Your task to perform on an android device: open app "ColorNote Notepad Notes" (install if not already installed) Image 0: 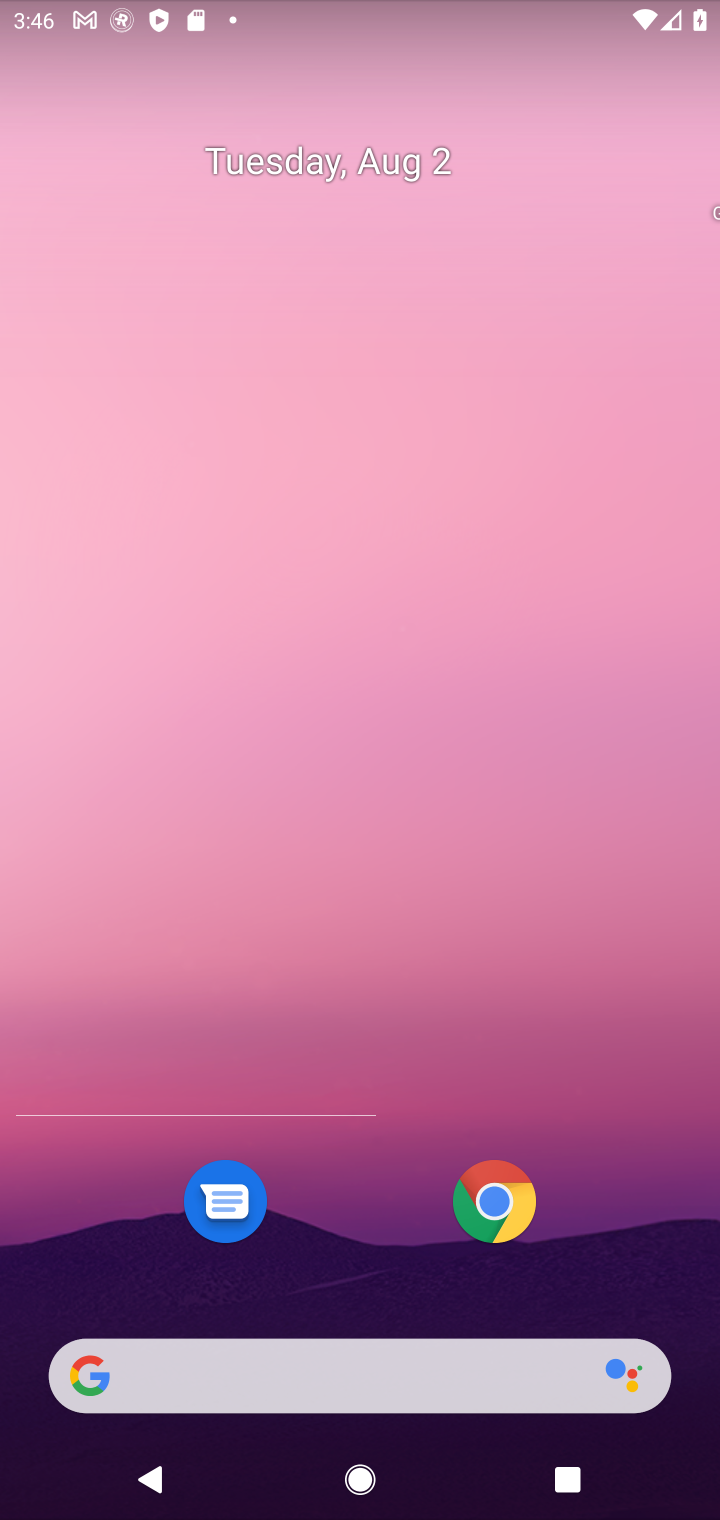
Step 0: press home button
Your task to perform on an android device: open app "ColorNote Notepad Notes" (install if not already installed) Image 1: 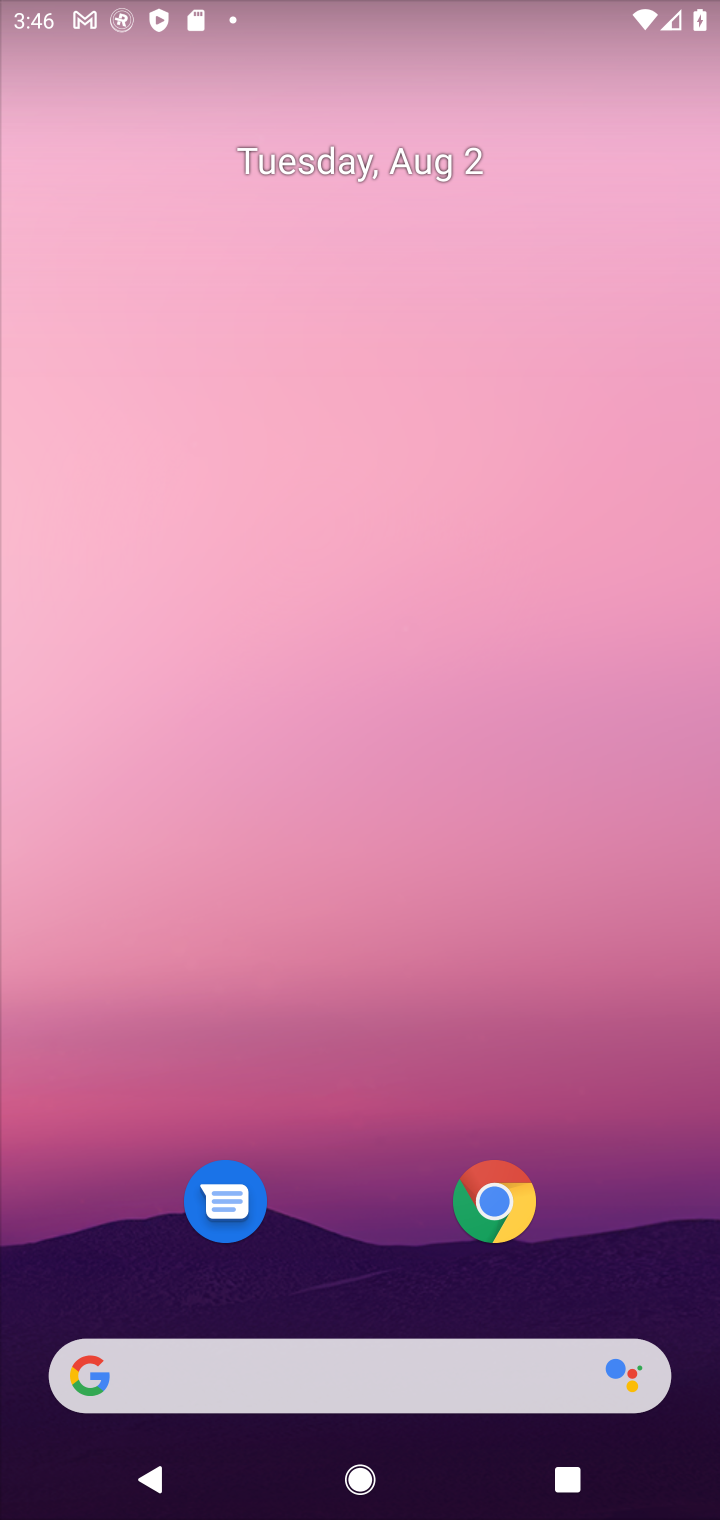
Step 1: drag from (395, 1286) to (362, 282)
Your task to perform on an android device: open app "ColorNote Notepad Notes" (install if not already installed) Image 2: 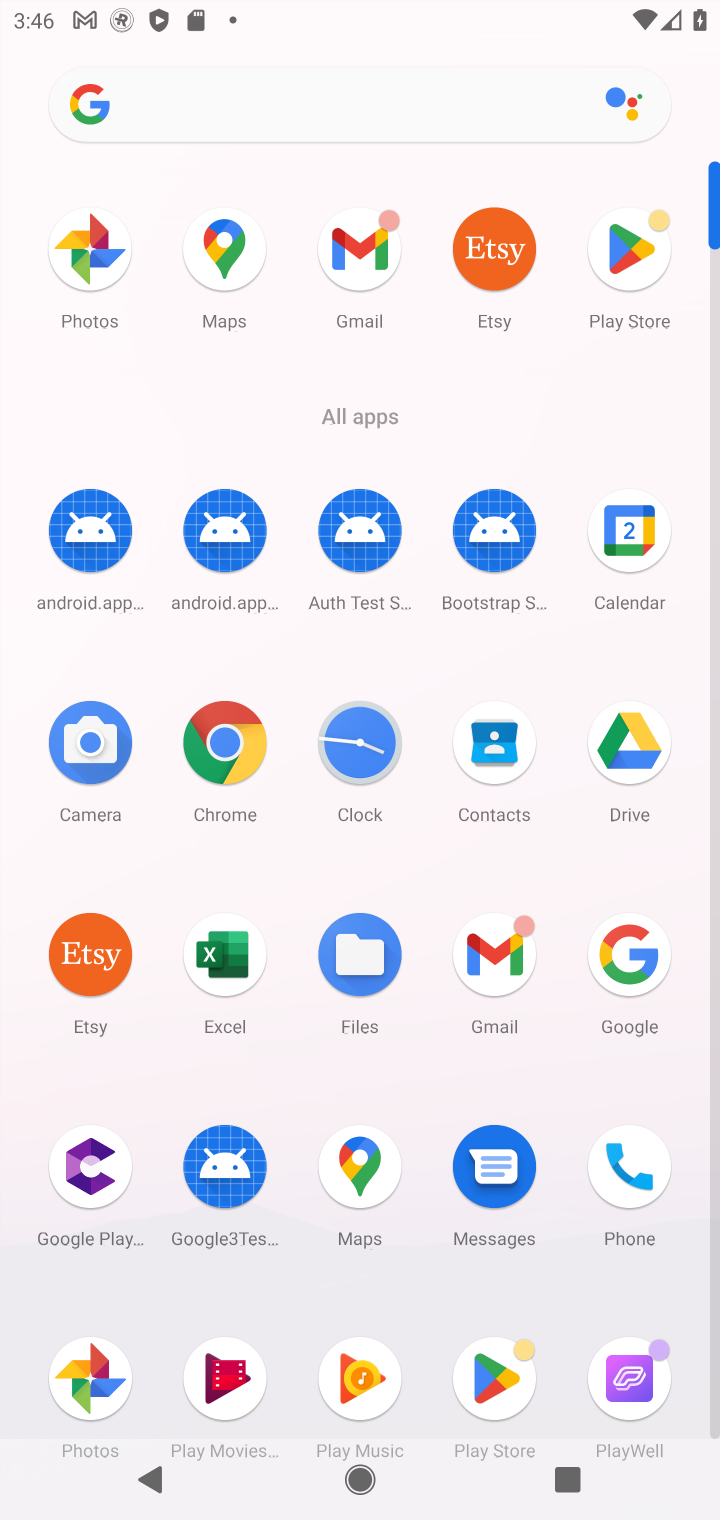
Step 2: click (620, 243)
Your task to perform on an android device: open app "ColorNote Notepad Notes" (install if not already installed) Image 3: 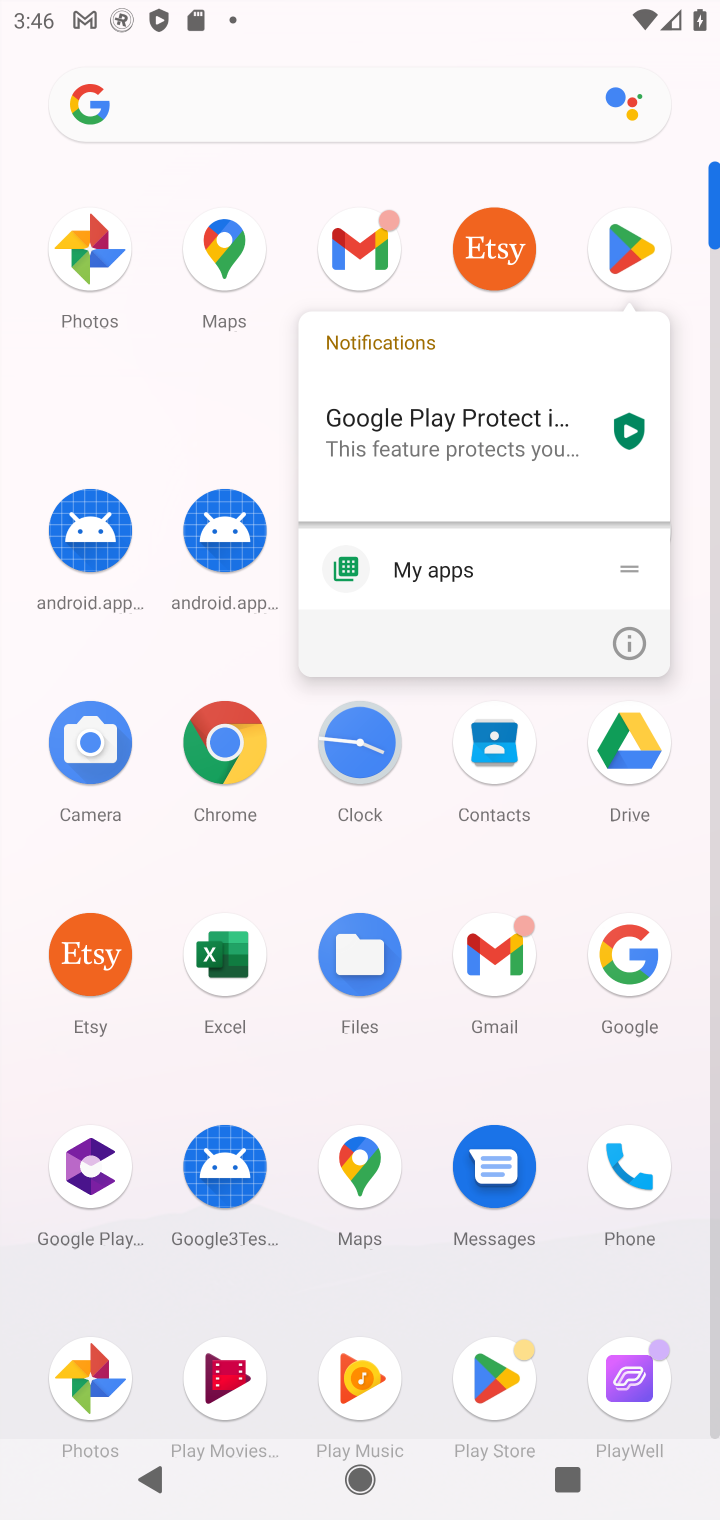
Step 3: click (619, 246)
Your task to perform on an android device: open app "ColorNote Notepad Notes" (install if not already installed) Image 4: 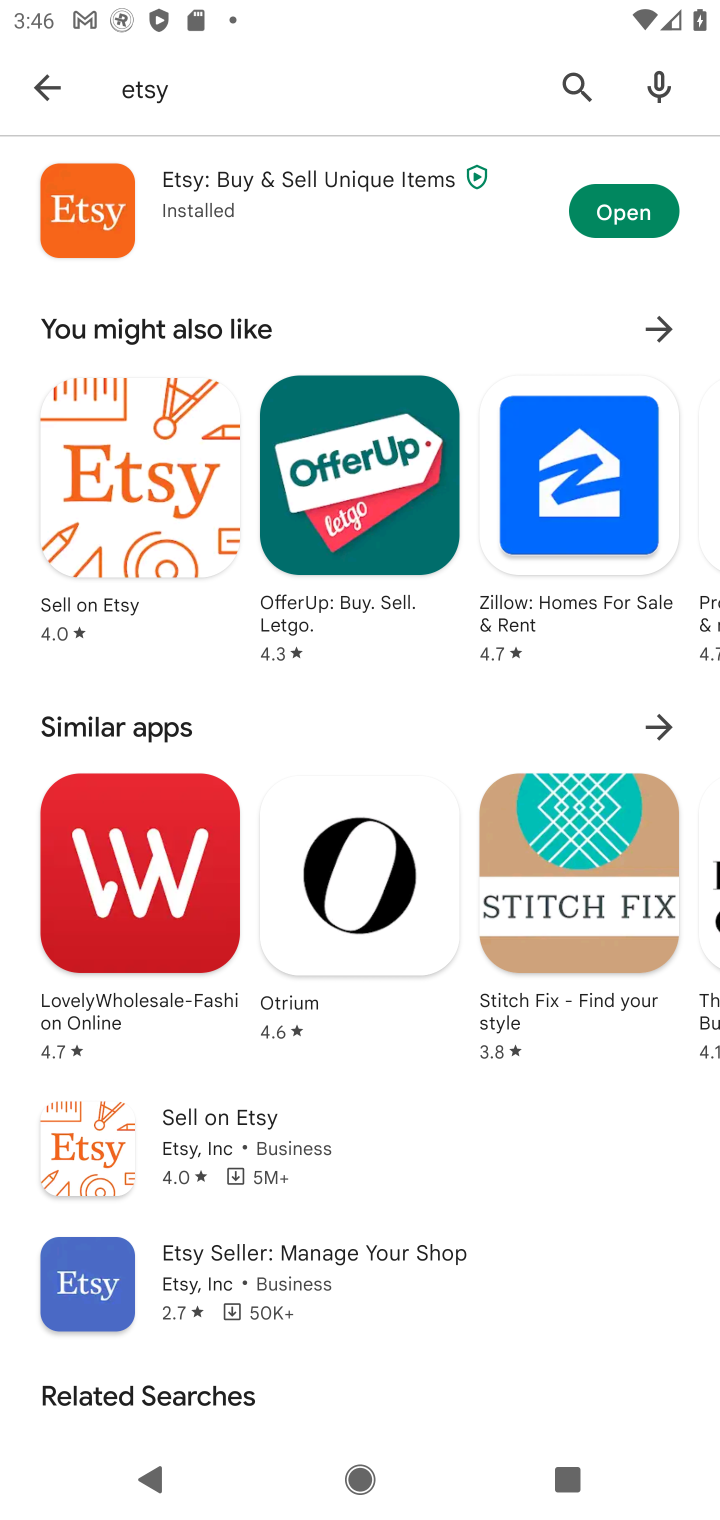
Step 4: click (572, 89)
Your task to perform on an android device: open app "ColorNote Notepad Notes" (install if not already installed) Image 5: 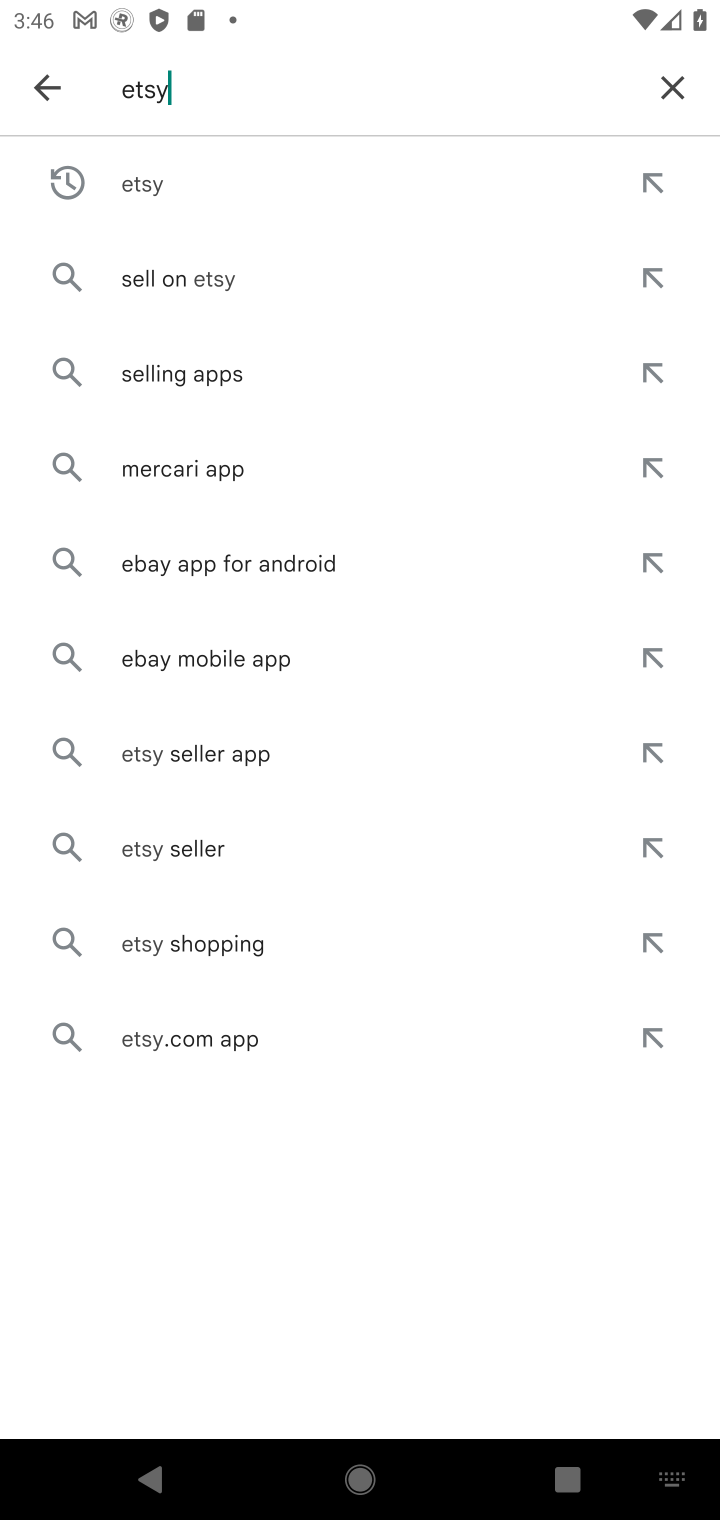
Step 5: click (671, 82)
Your task to perform on an android device: open app "ColorNote Notepad Notes" (install if not already installed) Image 6: 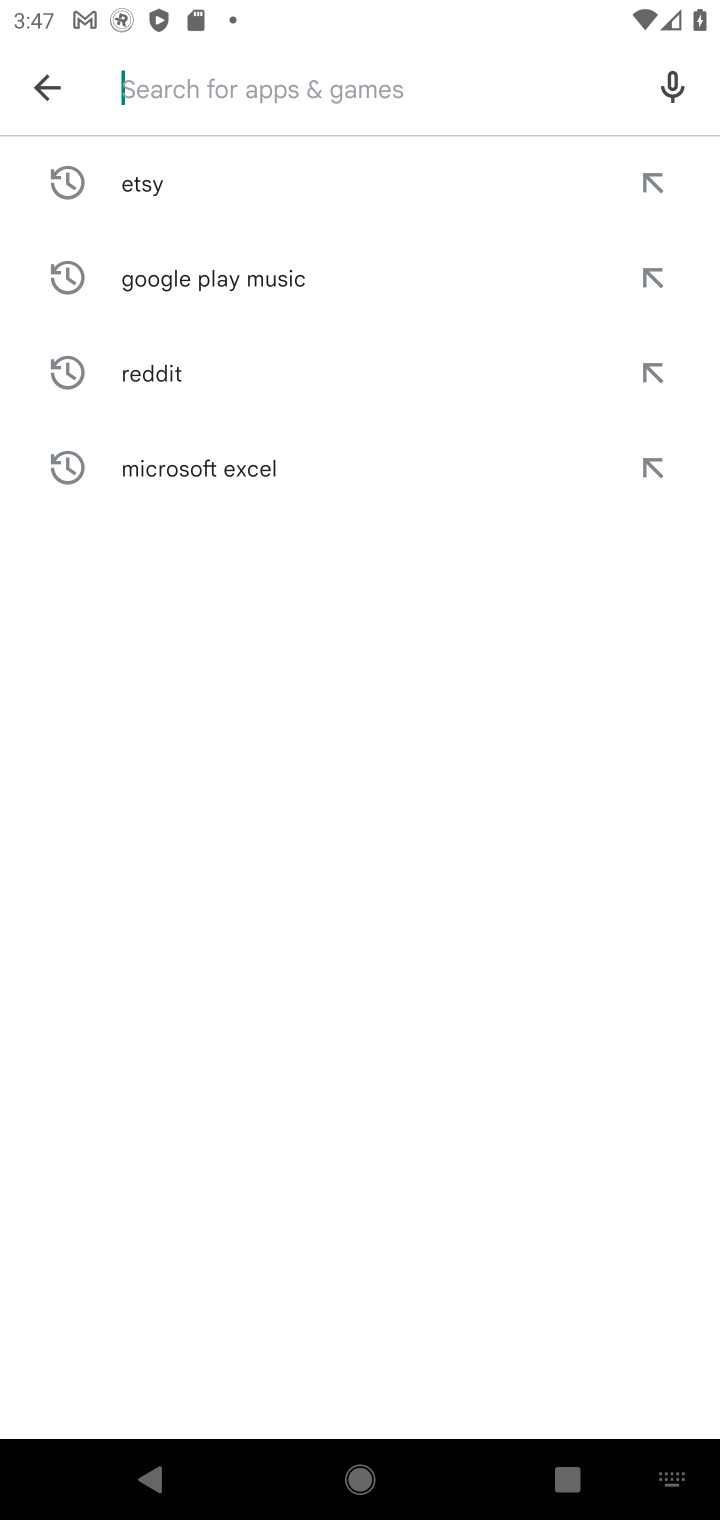
Step 6: type "ColorNote Notepad Notes"
Your task to perform on an android device: open app "ColorNote Notepad Notes" (install if not already installed) Image 7: 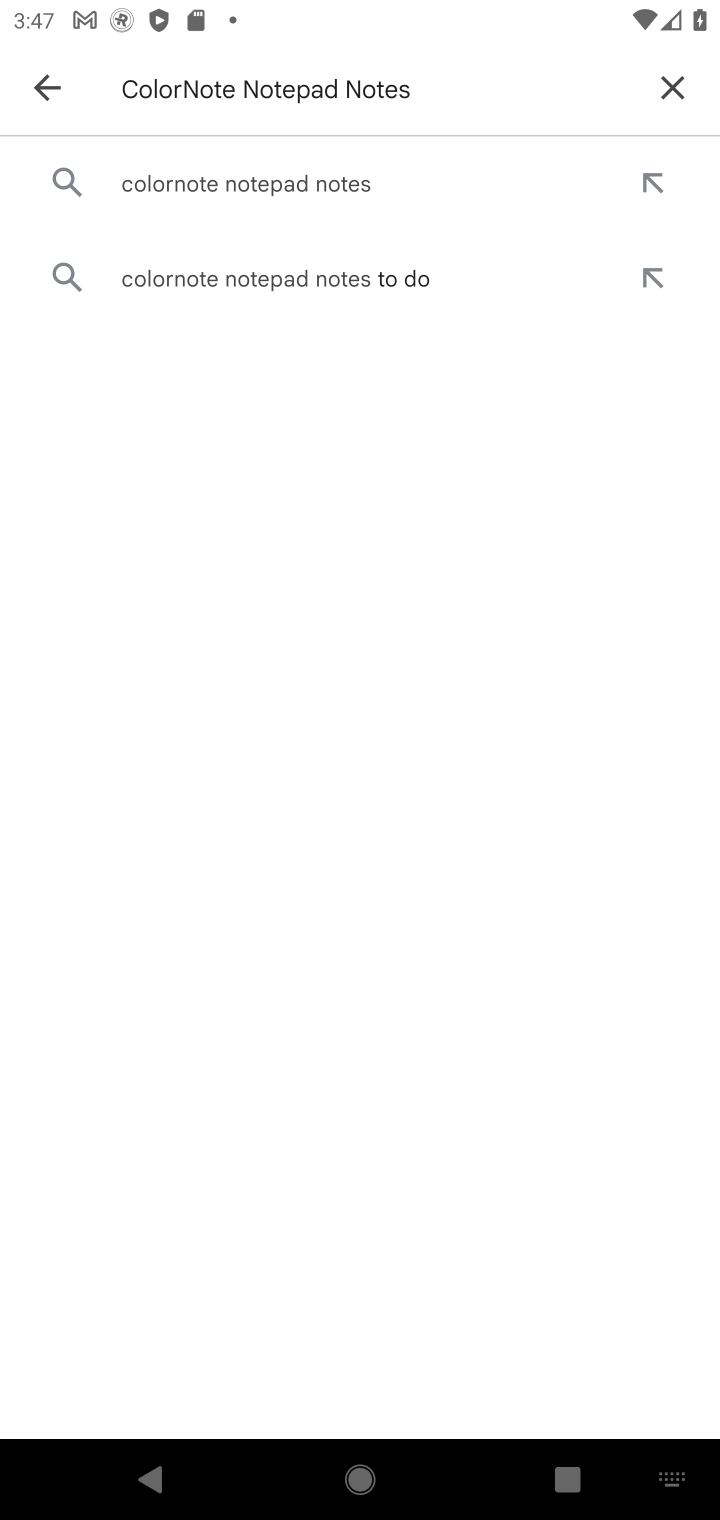
Step 7: click (405, 185)
Your task to perform on an android device: open app "ColorNote Notepad Notes" (install if not already installed) Image 8: 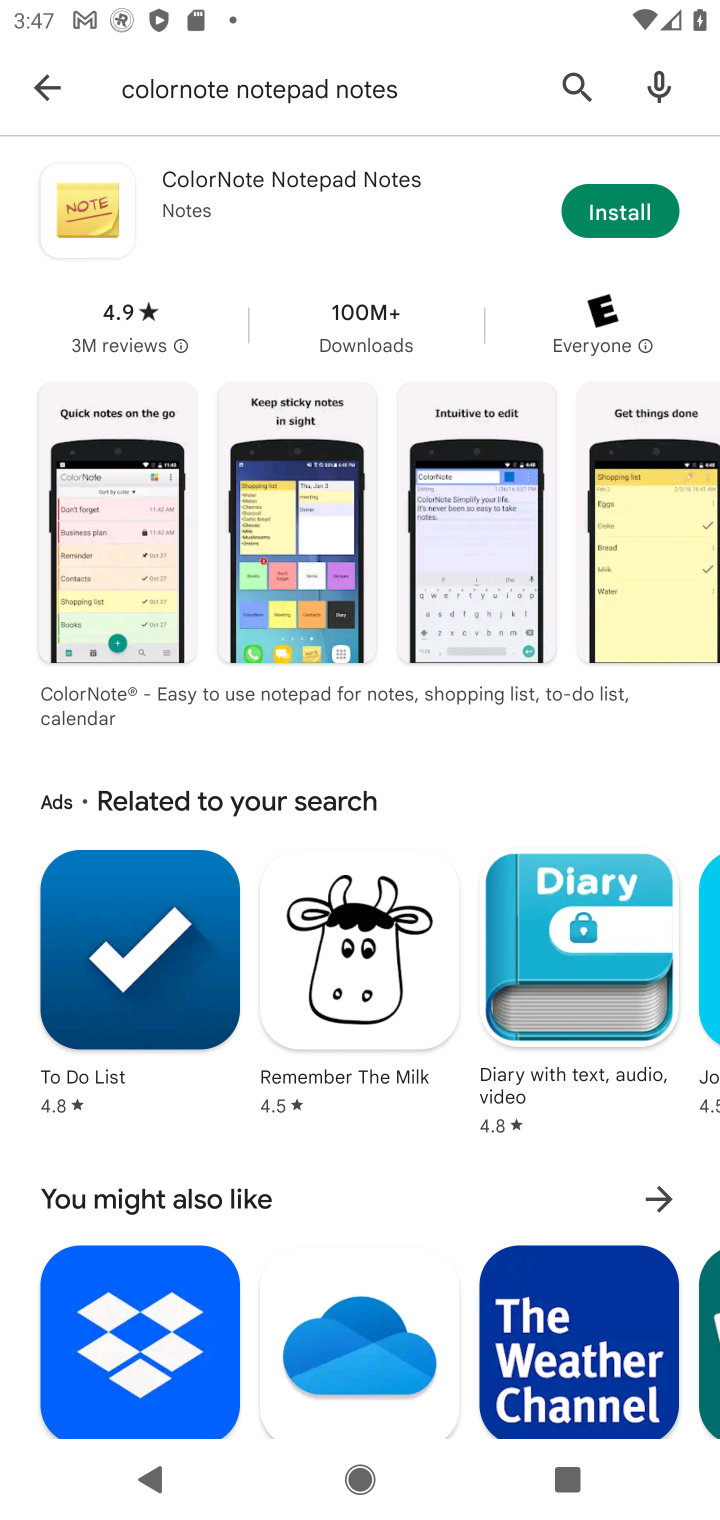
Step 8: click (625, 205)
Your task to perform on an android device: open app "ColorNote Notepad Notes" (install if not already installed) Image 9: 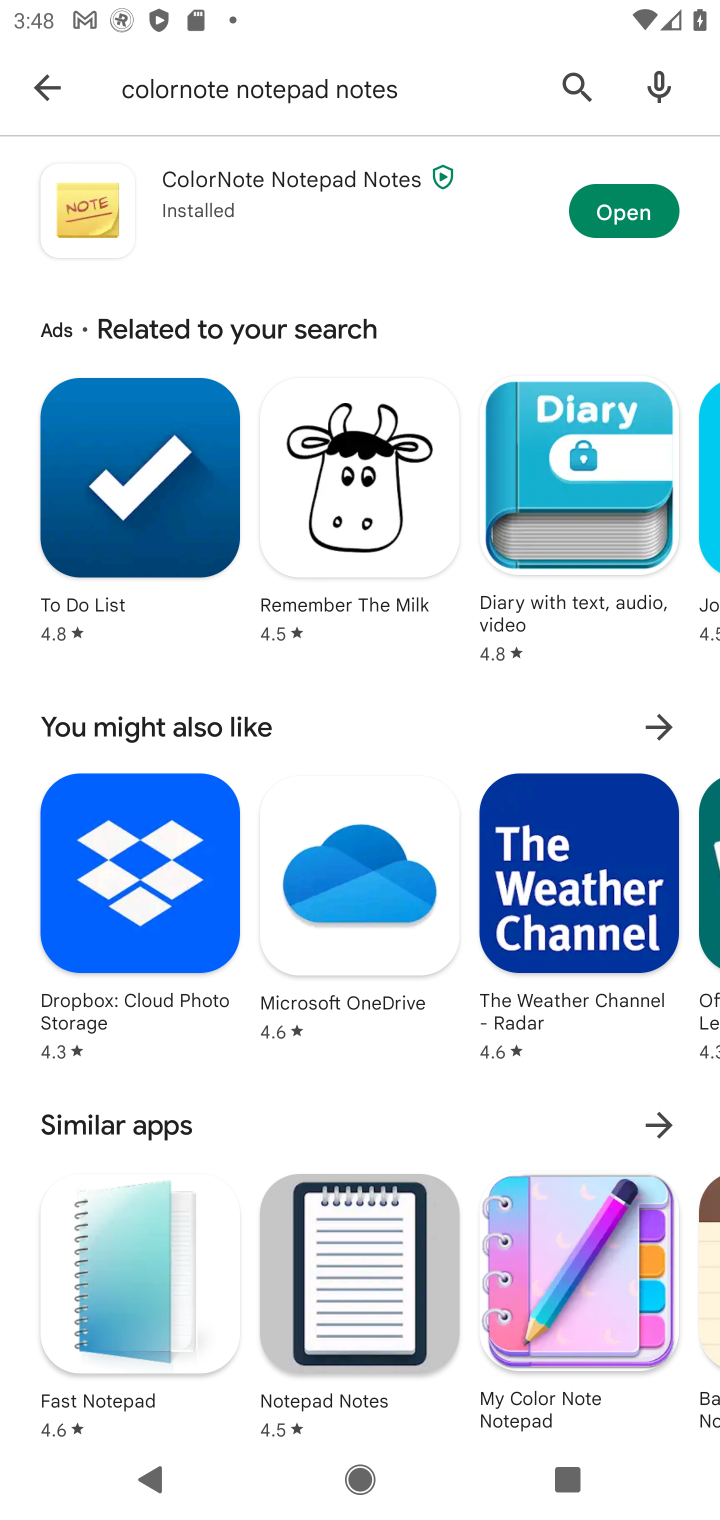
Step 9: click (615, 204)
Your task to perform on an android device: open app "ColorNote Notepad Notes" (install if not already installed) Image 10: 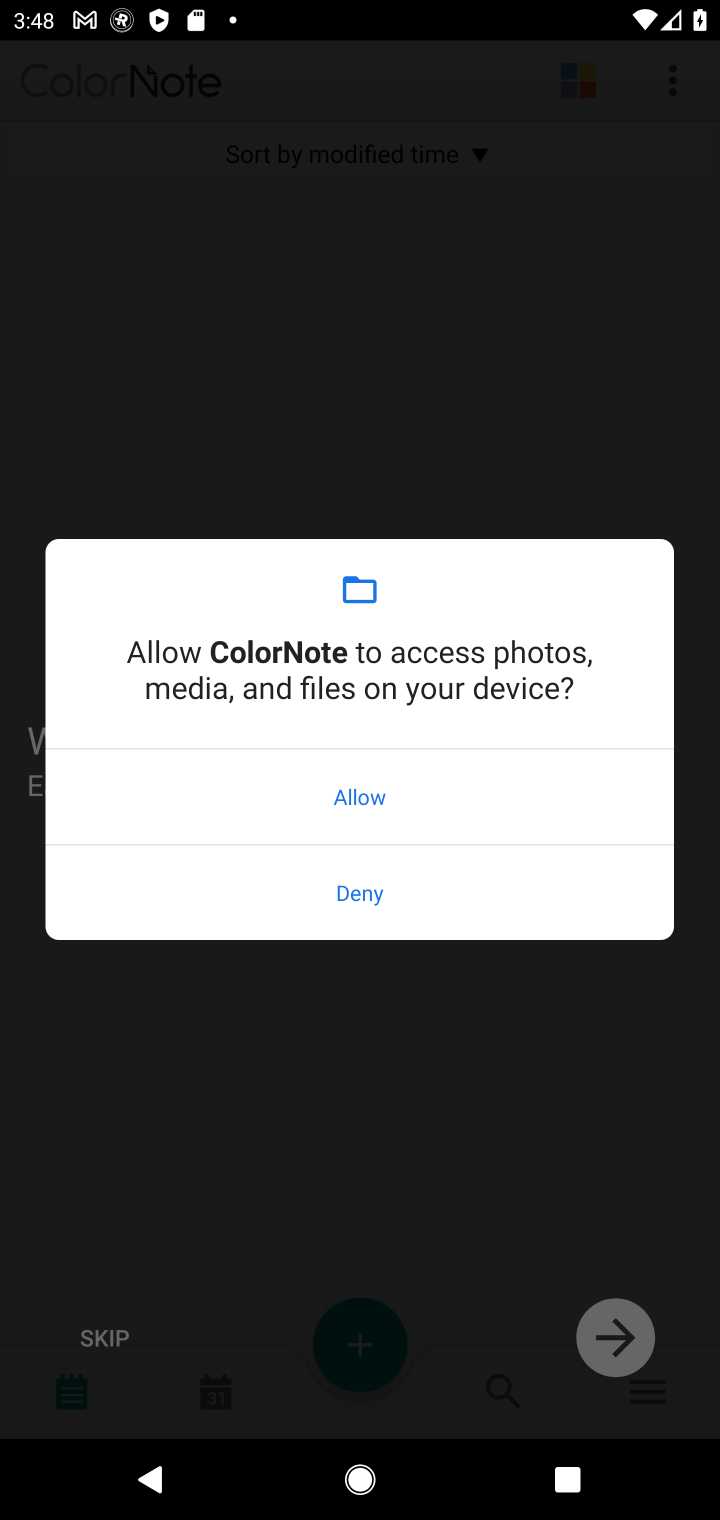
Step 10: click (353, 763)
Your task to perform on an android device: open app "ColorNote Notepad Notes" (install if not already installed) Image 11: 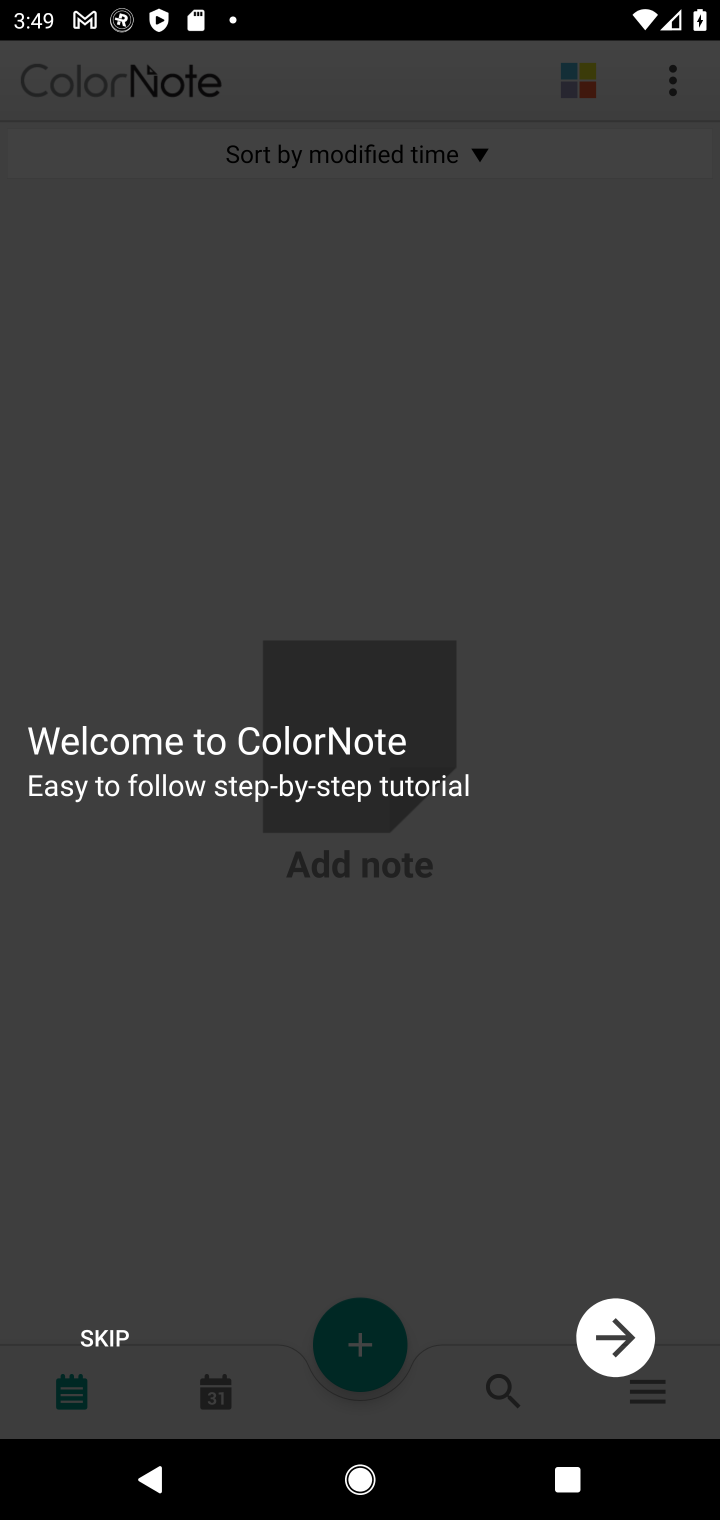
Step 11: task complete